Your task to perform on an android device: Open Google Maps Image 0: 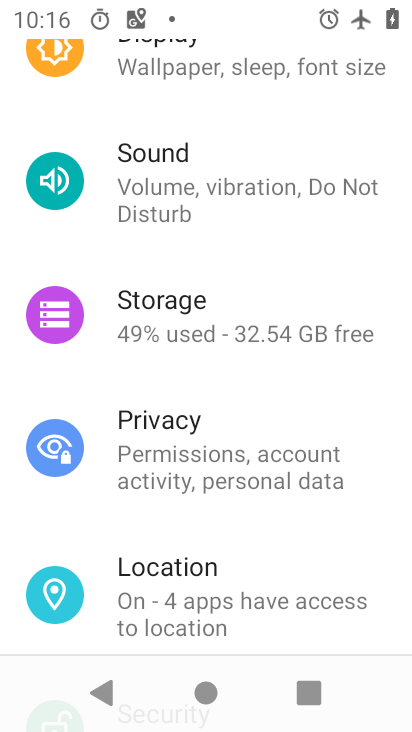
Step 0: press home button
Your task to perform on an android device: Open Google Maps Image 1: 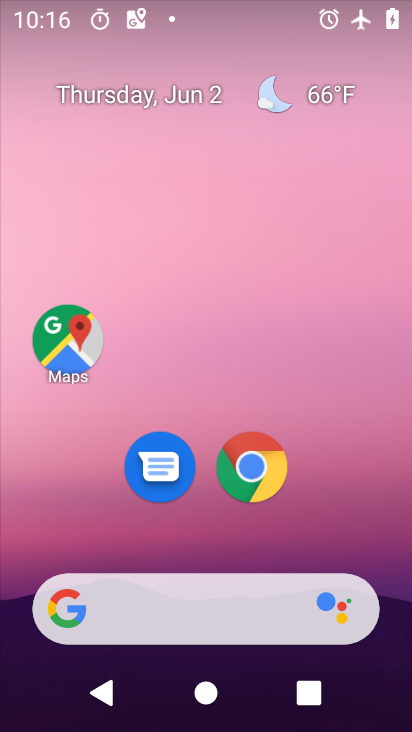
Step 1: click (73, 334)
Your task to perform on an android device: Open Google Maps Image 2: 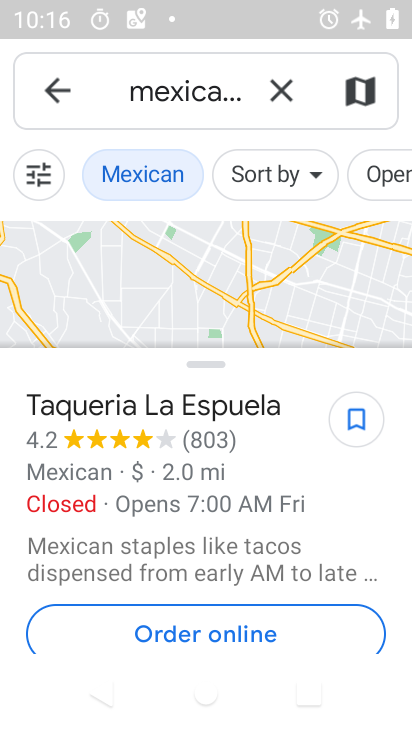
Step 2: click (286, 89)
Your task to perform on an android device: Open Google Maps Image 3: 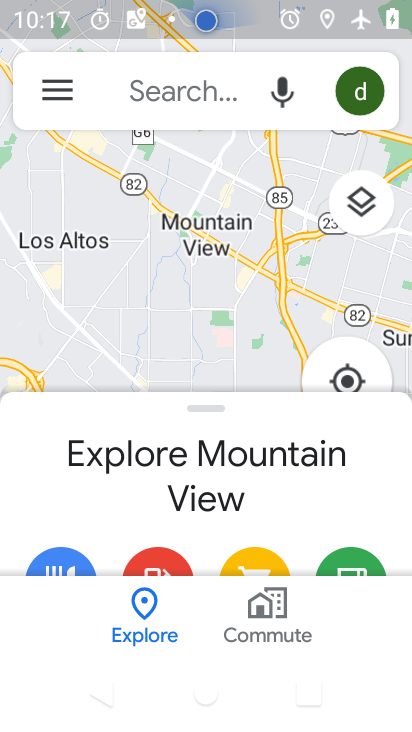
Step 3: task complete